Your task to perform on an android device: turn on wifi Image 0: 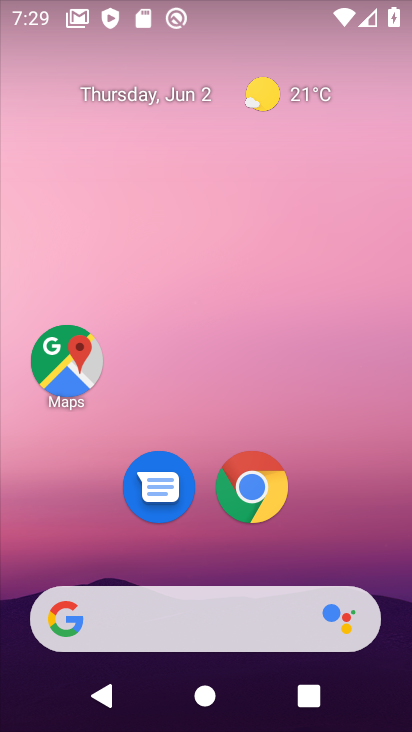
Step 0: drag from (198, 549) to (210, 205)
Your task to perform on an android device: turn on wifi Image 1: 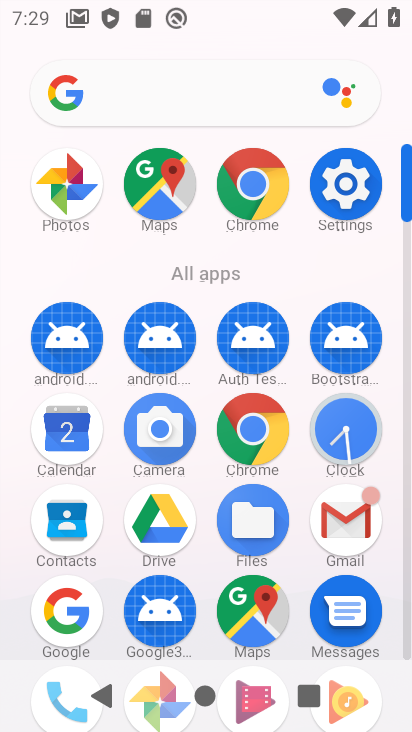
Step 1: click (352, 180)
Your task to perform on an android device: turn on wifi Image 2: 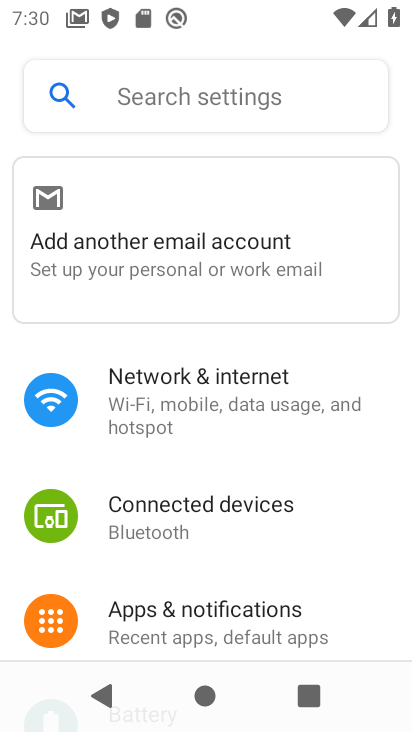
Step 2: click (302, 390)
Your task to perform on an android device: turn on wifi Image 3: 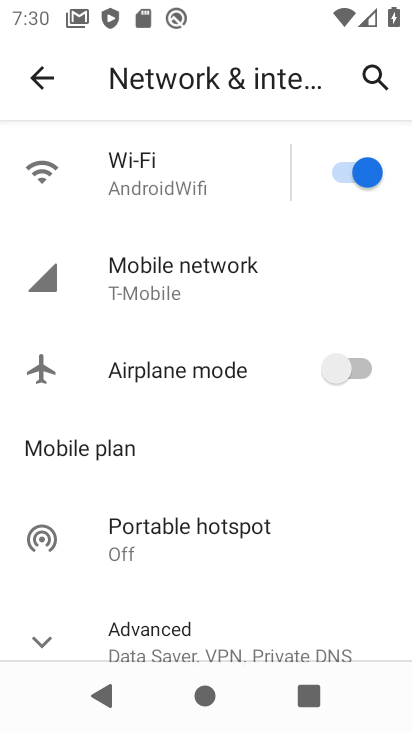
Step 3: task complete